Your task to perform on an android device: Open CNN.com Image 0: 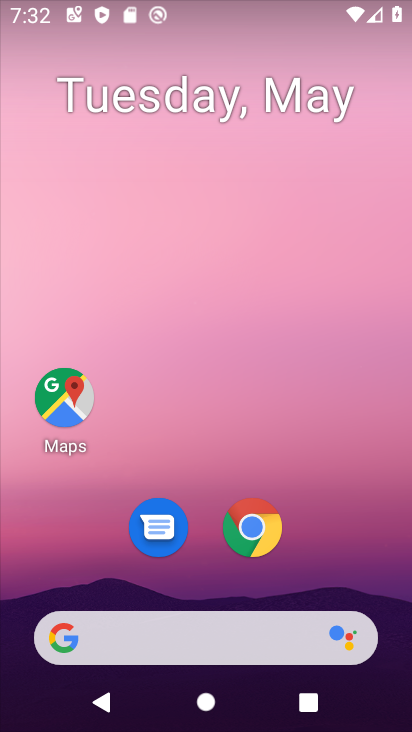
Step 0: click (252, 529)
Your task to perform on an android device: Open CNN.com Image 1: 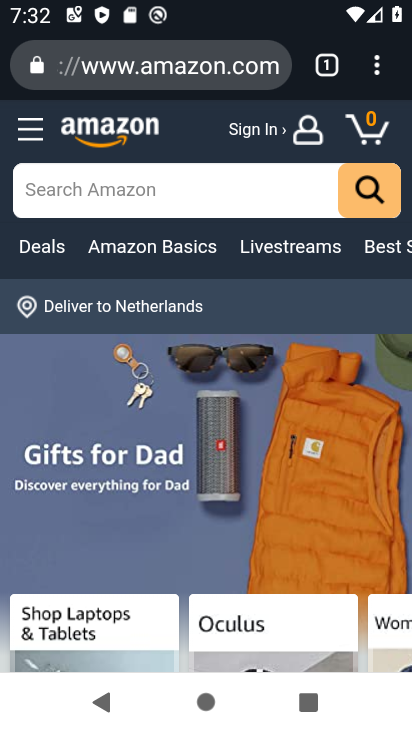
Step 1: click (243, 71)
Your task to perform on an android device: Open CNN.com Image 2: 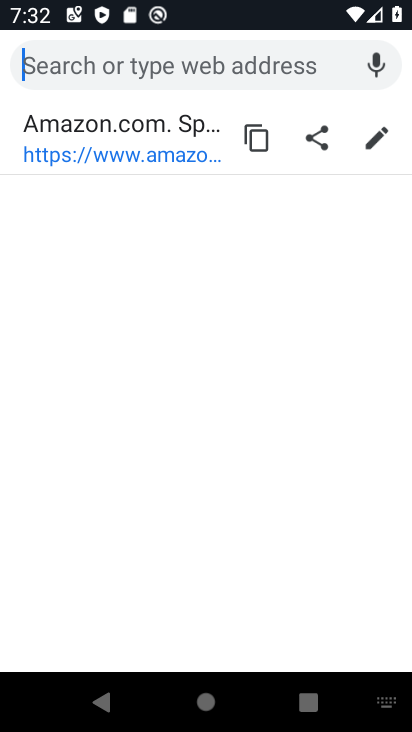
Step 2: type "CNN.com"
Your task to perform on an android device: Open CNN.com Image 3: 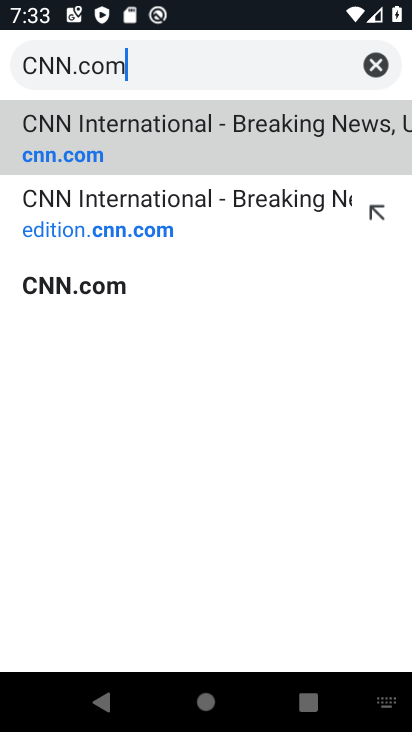
Step 3: click (119, 292)
Your task to perform on an android device: Open CNN.com Image 4: 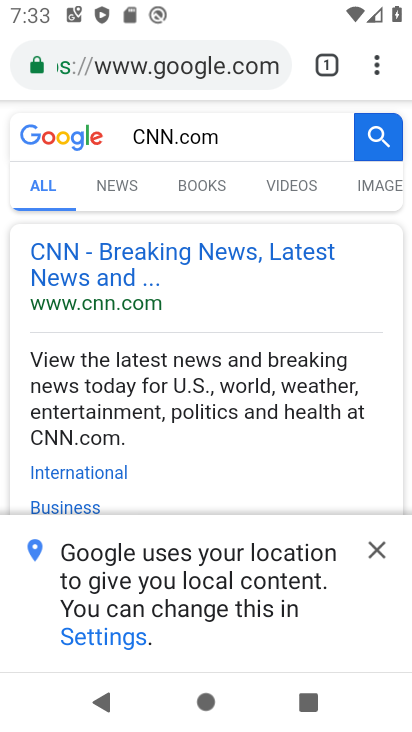
Step 4: click (159, 270)
Your task to perform on an android device: Open CNN.com Image 5: 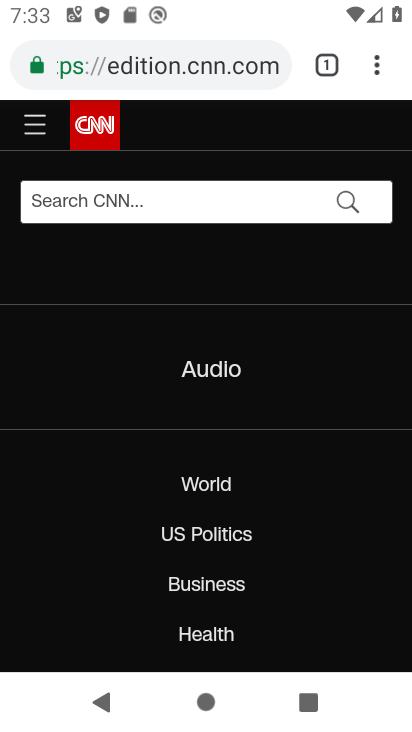
Step 5: task complete